Your task to perform on an android device: turn pop-ups off in chrome Image 0: 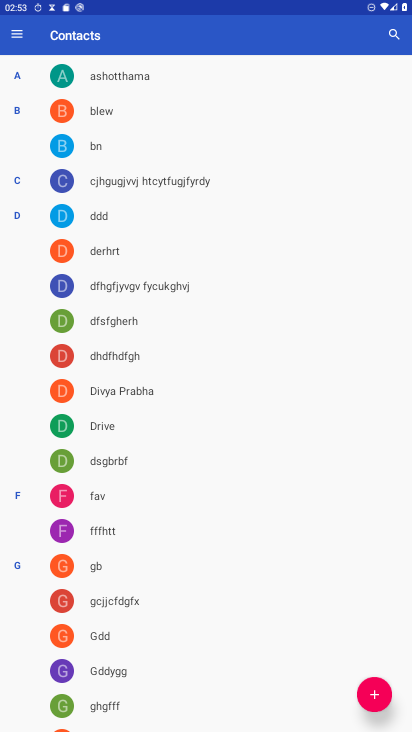
Step 0: press home button
Your task to perform on an android device: turn pop-ups off in chrome Image 1: 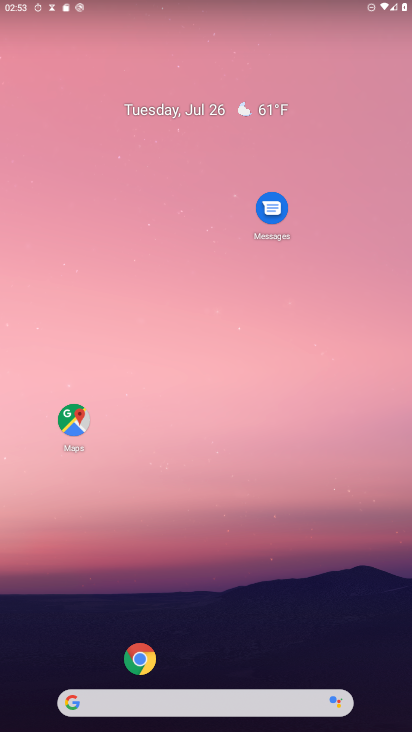
Step 1: click (132, 657)
Your task to perform on an android device: turn pop-ups off in chrome Image 2: 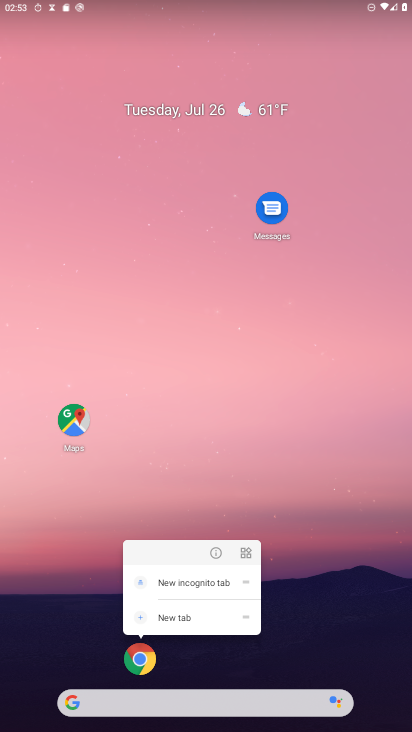
Step 2: click (149, 647)
Your task to perform on an android device: turn pop-ups off in chrome Image 3: 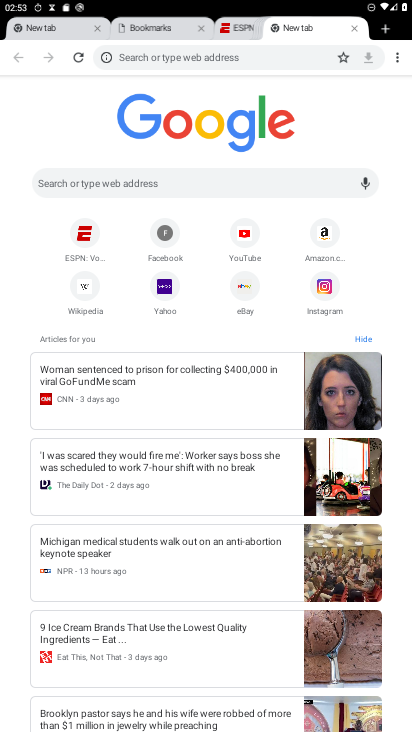
Step 3: click (395, 55)
Your task to perform on an android device: turn pop-ups off in chrome Image 4: 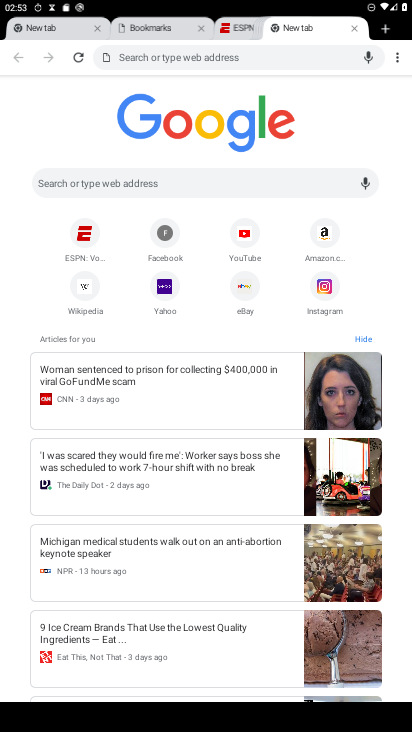
Step 4: click (398, 61)
Your task to perform on an android device: turn pop-ups off in chrome Image 5: 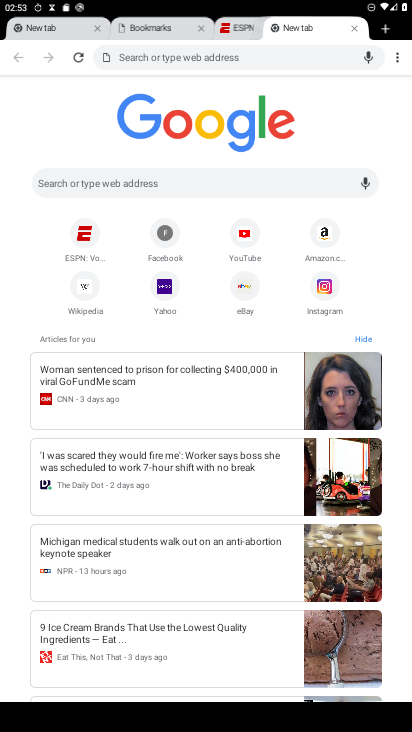
Step 5: click (403, 58)
Your task to perform on an android device: turn pop-ups off in chrome Image 6: 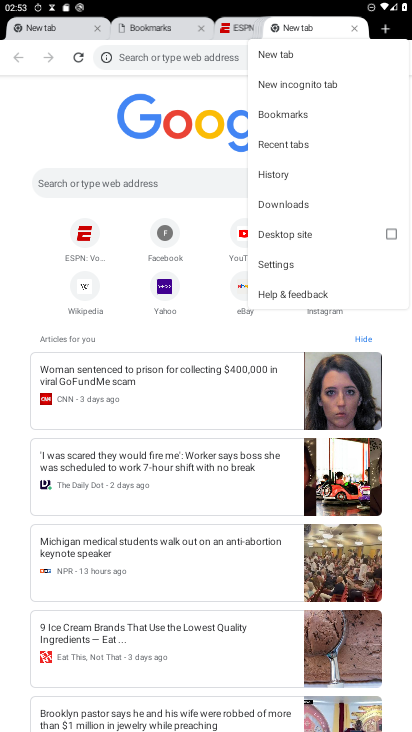
Step 6: click (273, 259)
Your task to perform on an android device: turn pop-ups off in chrome Image 7: 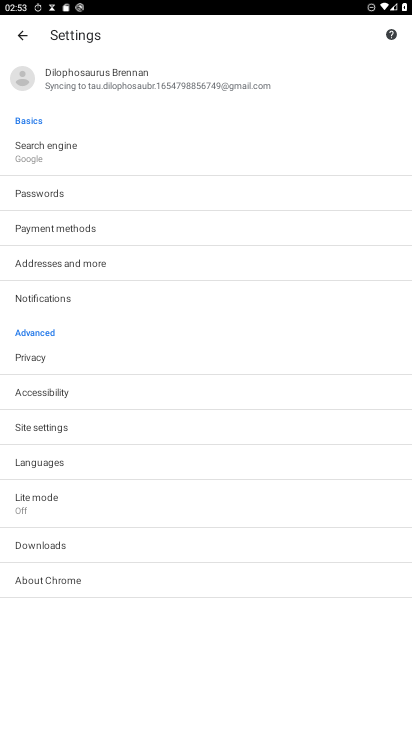
Step 7: click (48, 427)
Your task to perform on an android device: turn pop-ups off in chrome Image 8: 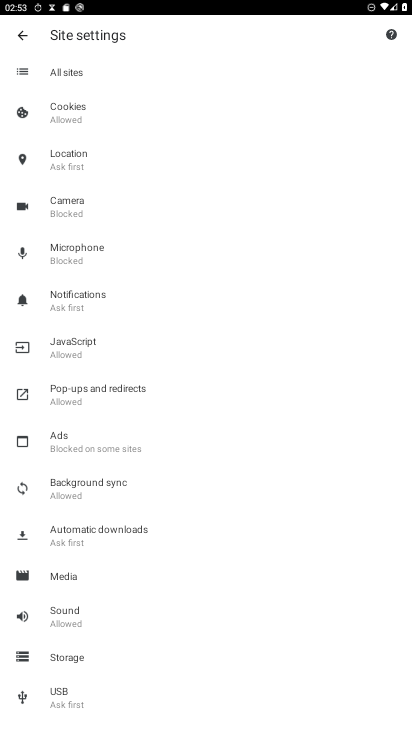
Step 8: click (107, 390)
Your task to perform on an android device: turn pop-ups off in chrome Image 9: 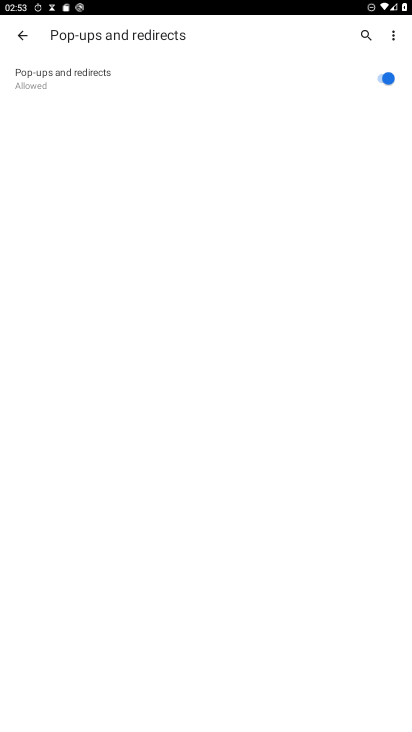
Step 9: task complete